Your task to perform on an android device: Go to internet settings Image 0: 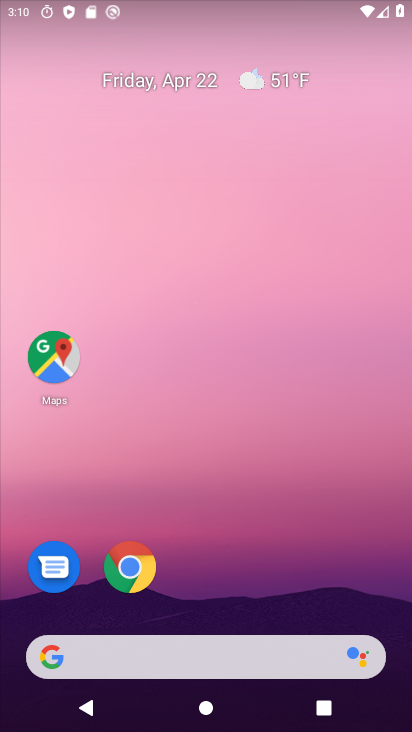
Step 0: drag from (284, 432) to (272, 55)
Your task to perform on an android device: Go to internet settings Image 1: 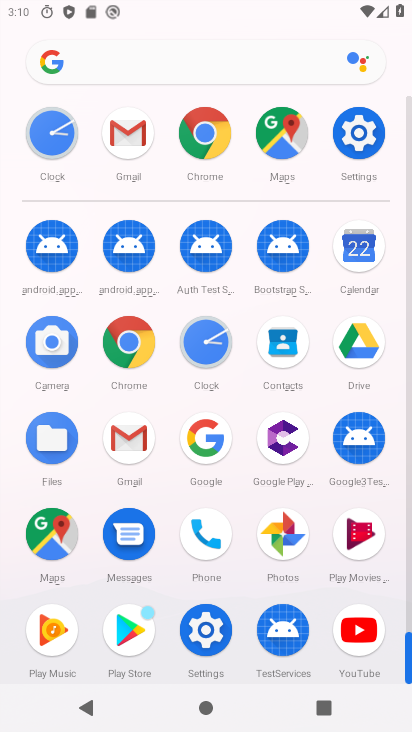
Step 1: click (353, 139)
Your task to perform on an android device: Go to internet settings Image 2: 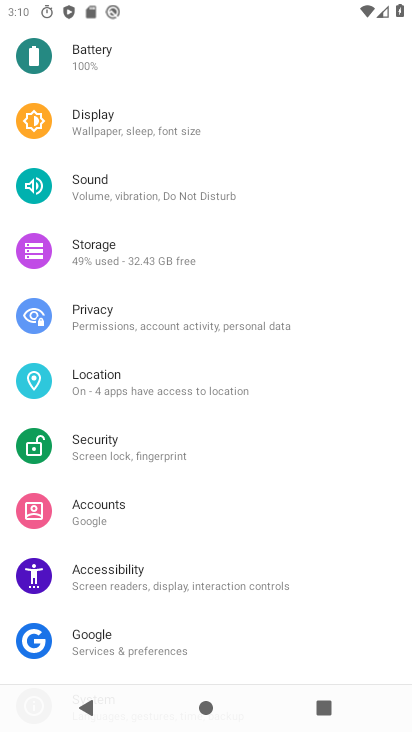
Step 2: drag from (238, 117) to (188, 630)
Your task to perform on an android device: Go to internet settings Image 3: 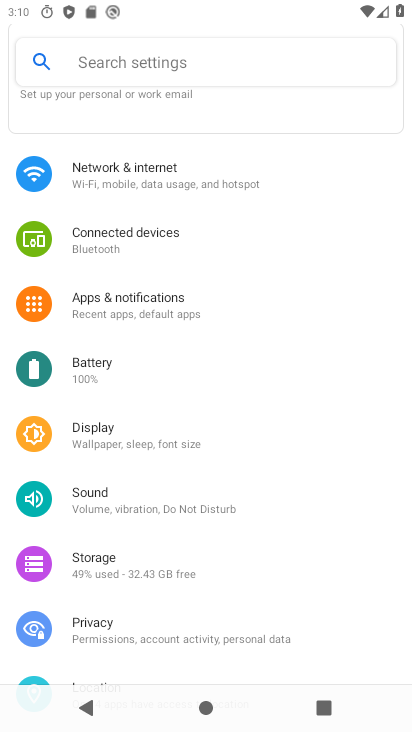
Step 3: click (204, 178)
Your task to perform on an android device: Go to internet settings Image 4: 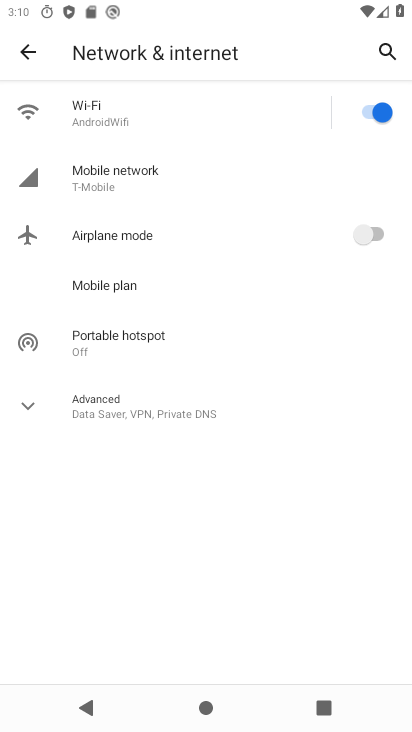
Step 4: task complete